Your task to perform on an android device: Show me productivity apps on the Play Store Image 0: 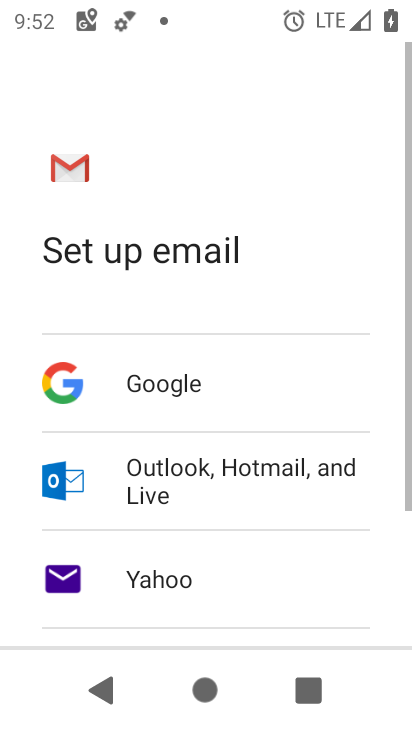
Step 0: click (299, 16)
Your task to perform on an android device: Show me productivity apps on the Play Store Image 1: 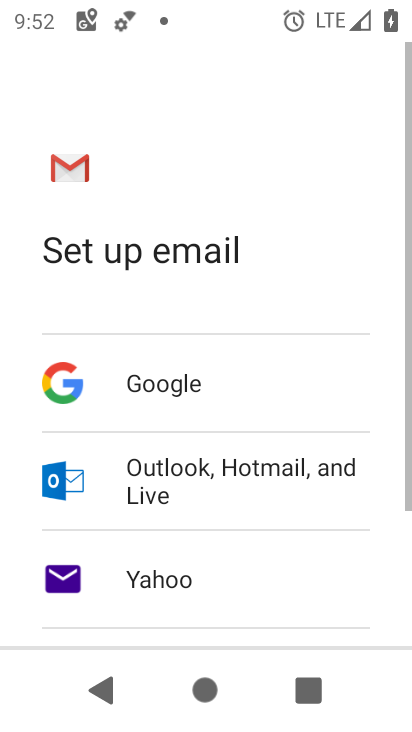
Step 1: press home button
Your task to perform on an android device: Show me productivity apps on the Play Store Image 2: 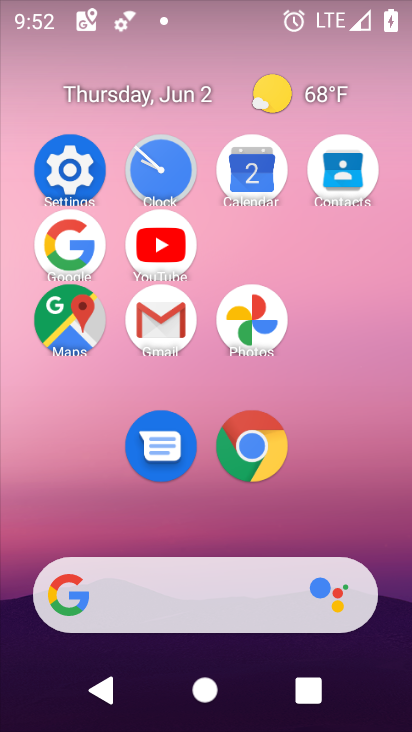
Step 2: drag from (208, 523) to (214, 4)
Your task to perform on an android device: Show me productivity apps on the Play Store Image 3: 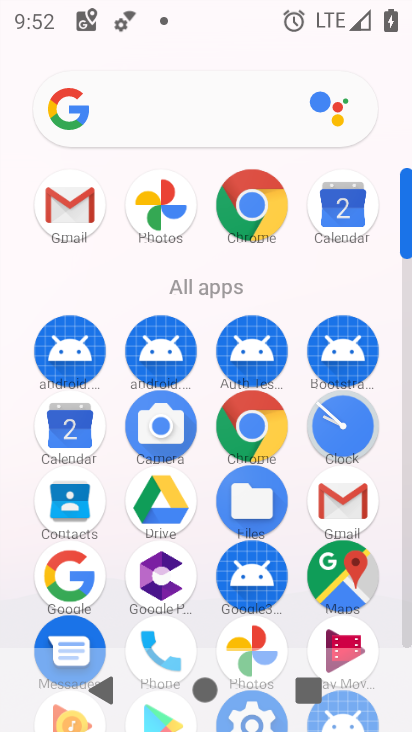
Step 3: drag from (255, 600) to (255, 279)
Your task to perform on an android device: Show me productivity apps on the Play Store Image 4: 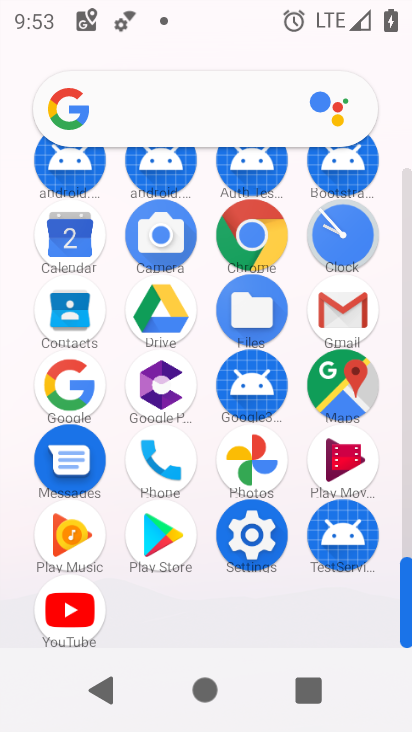
Step 4: click (149, 547)
Your task to perform on an android device: Show me productivity apps on the Play Store Image 5: 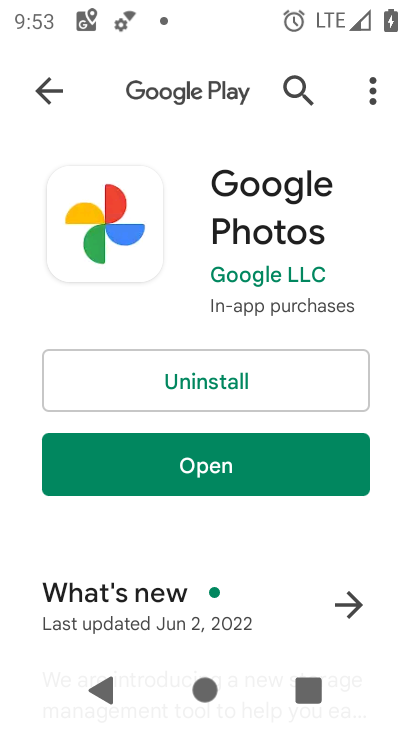
Step 5: click (36, 93)
Your task to perform on an android device: Show me productivity apps on the Play Store Image 6: 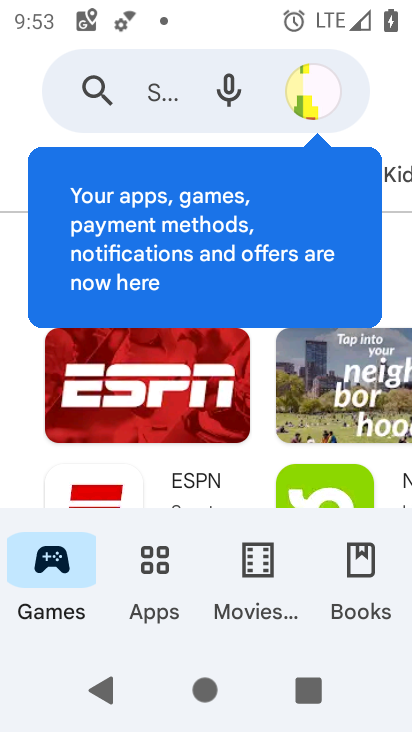
Step 6: click (168, 557)
Your task to perform on an android device: Show me productivity apps on the Play Store Image 7: 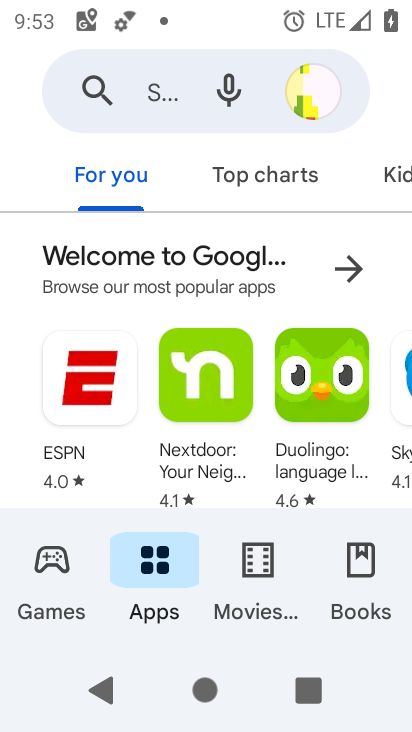
Step 7: drag from (368, 170) to (69, 151)
Your task to perform on an android device: Show me productivity apps on the Play Store Image 8: 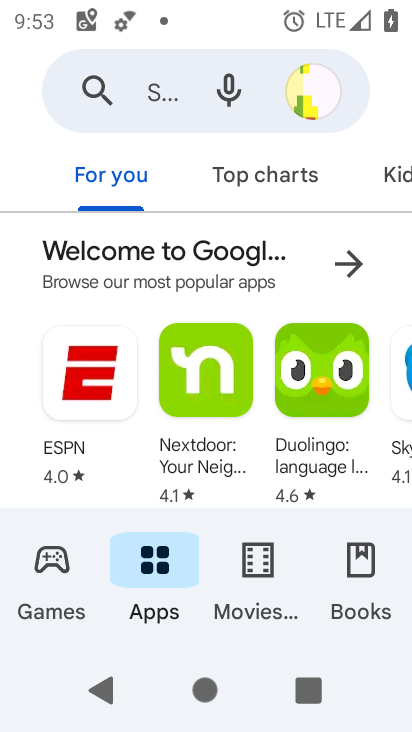
Step 8: drag from (346, 167) to (54, 178)
Your task to perform on an android device: Show me productivity apps on the Play Store Image 9: 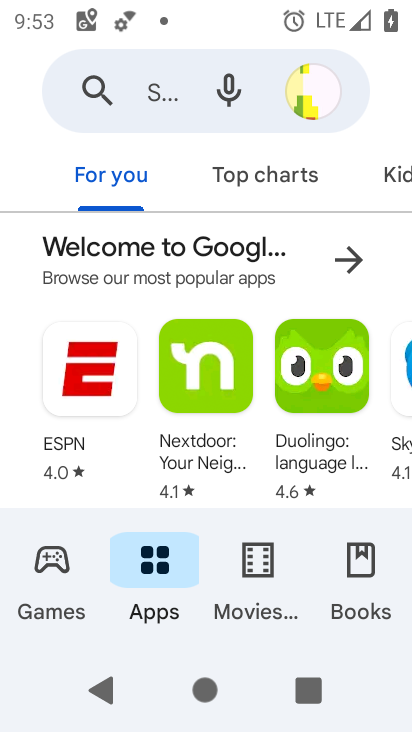
Step 9: drag from (294, 193) to (9, 196)
Your task to perform on an android device: Show me productivity apps on the Play Store Image 10: 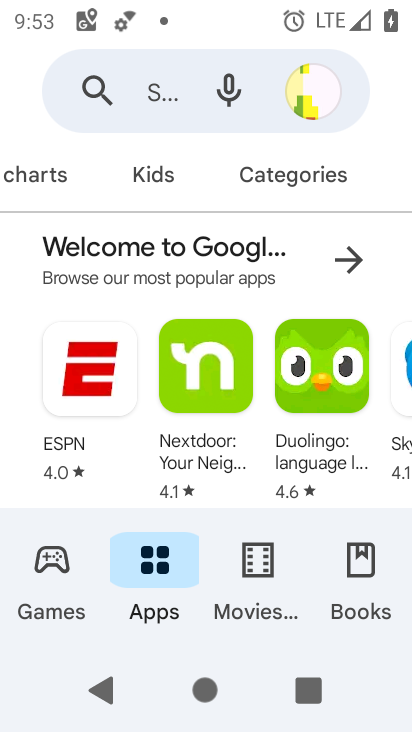
Step 10: click (313, 187)
Your task to perform on an android device: Show me productivity apps on the Play Store Image 11: 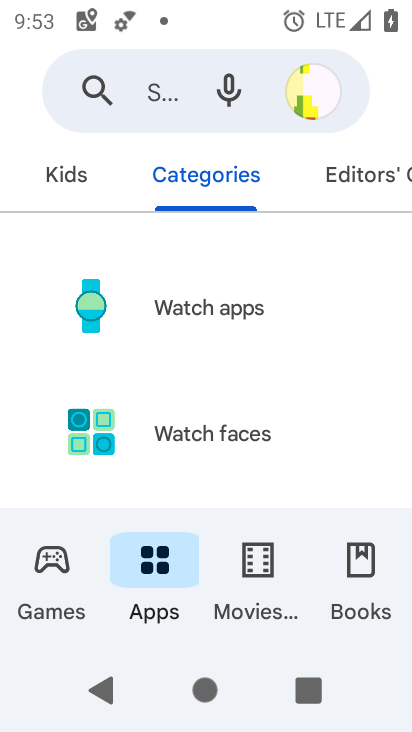
Step 11: drag from (280, 445) to (291, 167)
Your task to perform on an android device: Show me productivity apps on the Play Store Image 12: 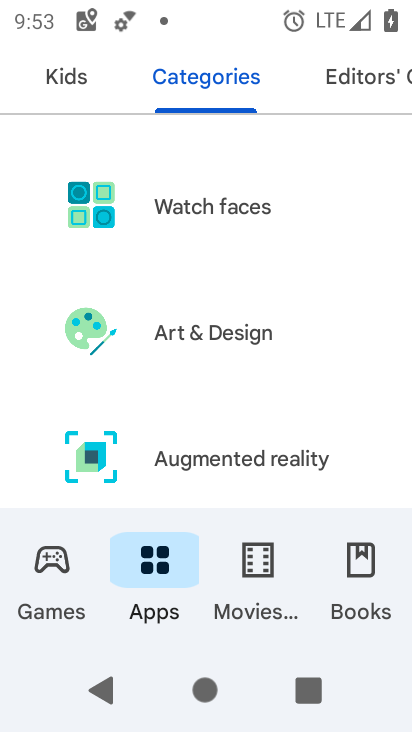
Step 12: drag from (307, 428) to (334, 144)
Your task to perform on an android device: Show me productivity apps on the Play Store Image 13: 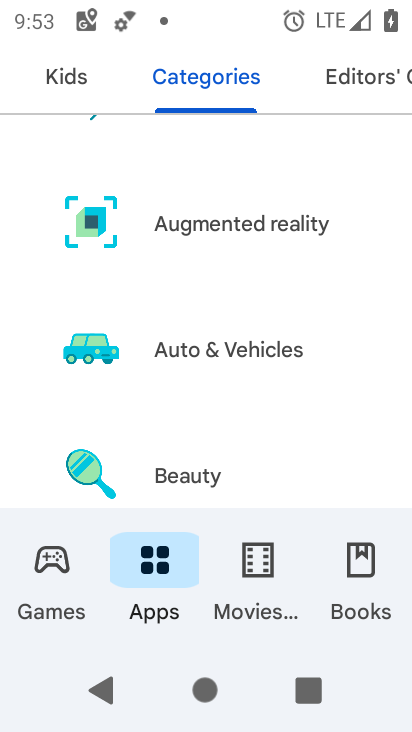
Step 13: drag from (267, 422) to (254, 130)
Your task to perform on an android device: Show me productivity apps on the Play Store Image 14: 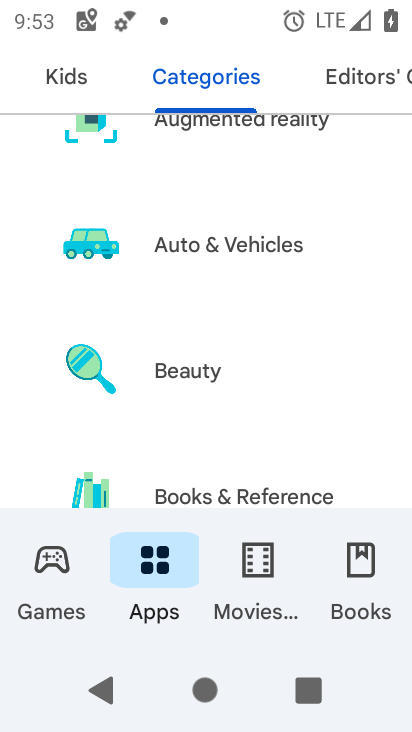
Step 14: drag from (243, 444) to (229, 91)
Your task to perform on an android device: Show me productivity apps on the Play Store Image 15: 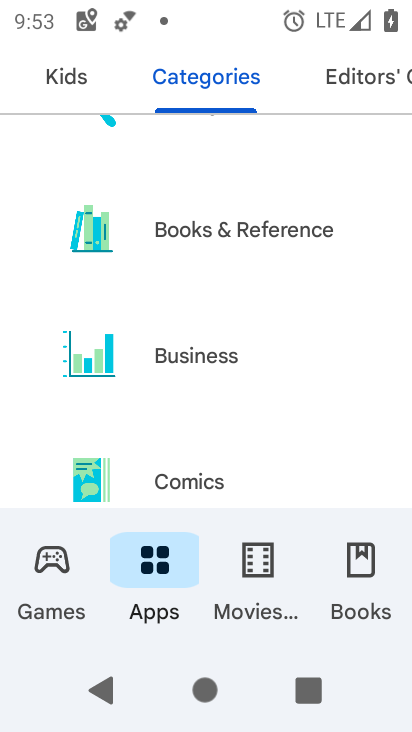
Step 15: drag from (226, 466) to (302, 151)
Your task to perform on an android device: Show me productivity apps on the Play Store Image 16: 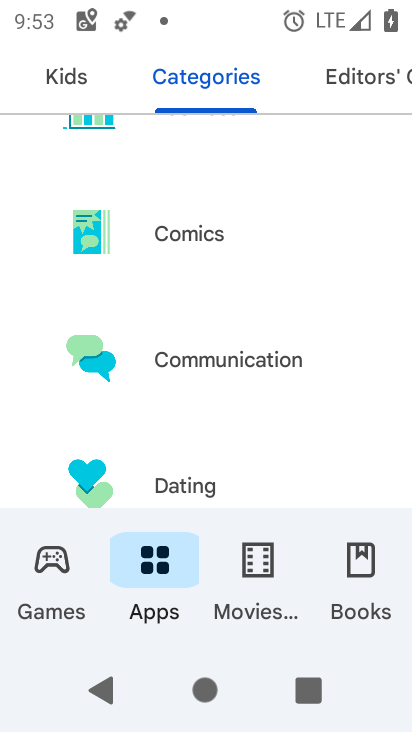
Step 16: drag from (284, 443) to (337, 156)
Your task to perform on an android device: Show me productivity apps on the Play Store Image 17: 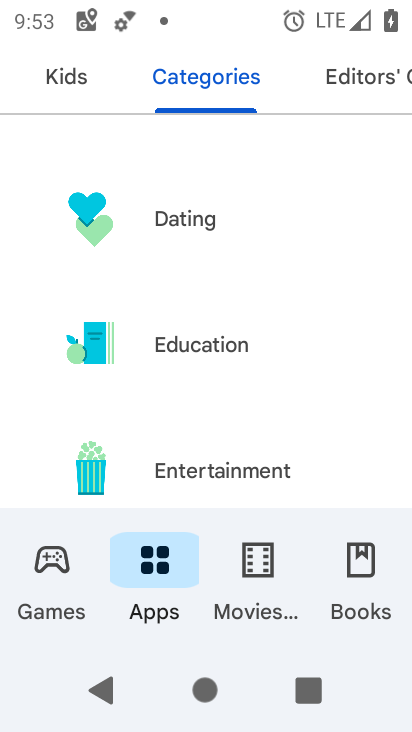
Step 17: drag from (266, 435) to (349, 66)
Your task to perform on an android device: Show me productivity apps on the Play Store Image 18: 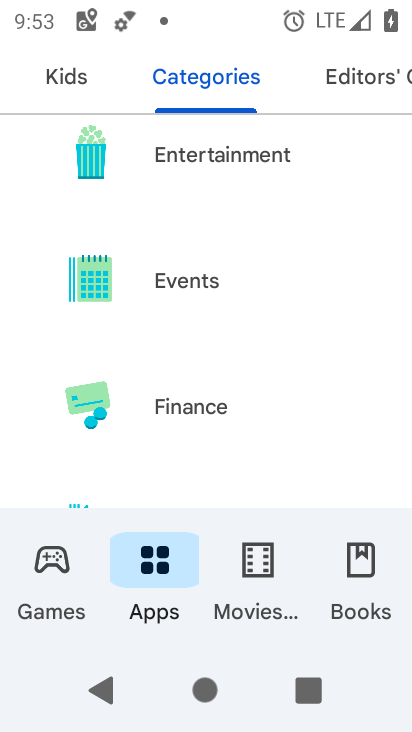
Step 18: drag from (282, 406) to (322, 136)
Your task to perform on an android device: Show me productivity apps on the Play Store Image 19: 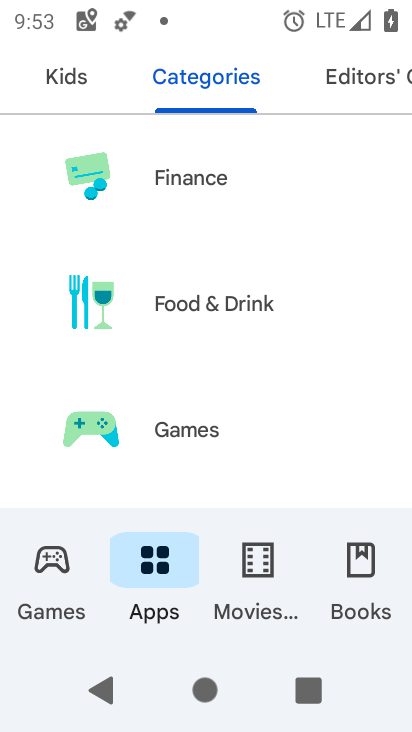
Step 19: drag from (271, 414) to (266, 125)
Your task to perform on an android device: Show me productivity apps on the Play Store Image 20: 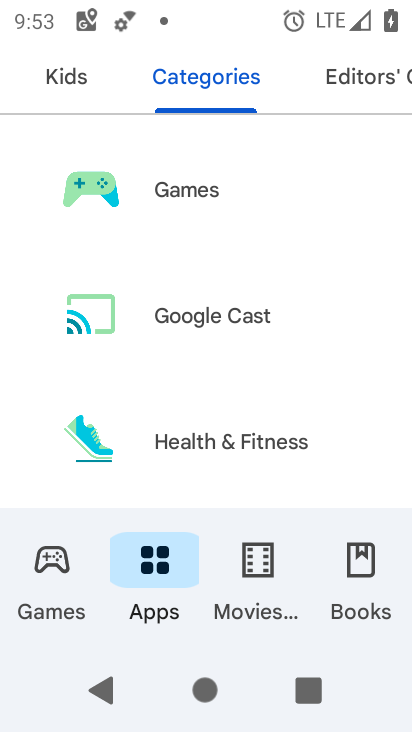
Step 20: drag from (274, 436) to (314, 168)
Your task to perform on an android device: Show me productivity apps on the Play Store Image 21: 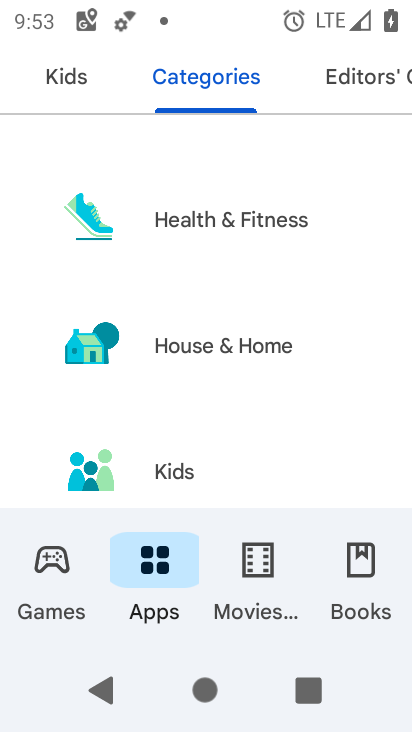
Step 21: drag from (270, 440) to (293, 177)
Your task to perform on an android device: Show me productivity apps on the Play Store Image 22: 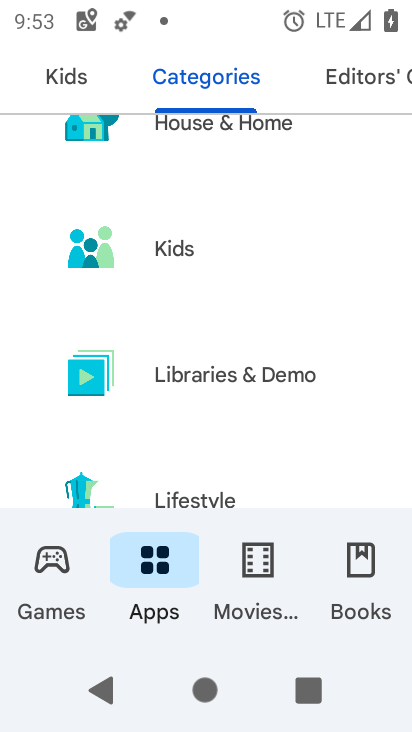
Step 22: drag from (280, 450) to (289, 181)
Your task to perform on an android device: Show me productivity apps on the Play Store Image 23: 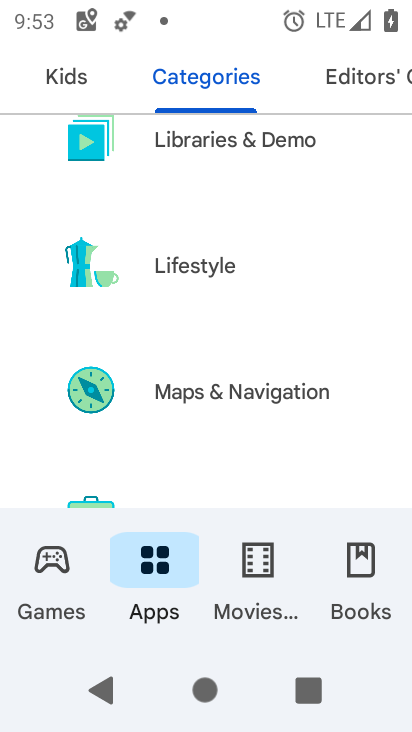
Step 23: drag from (289, 458) to (311, 154)
Your task to perform on an android device: Show me productivity apps on the Play Store Image 24: 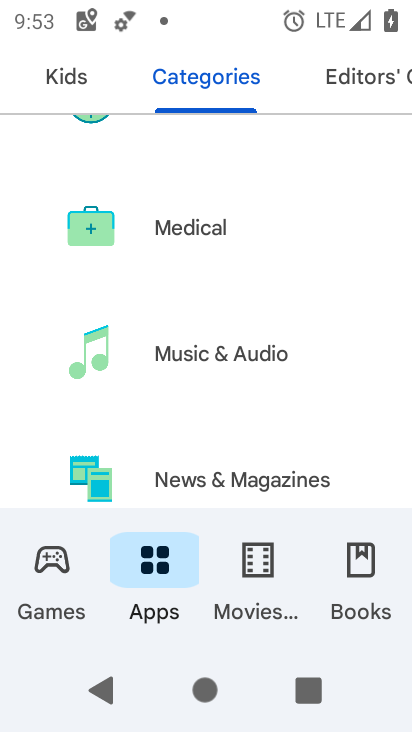
Step 24: drag from (281, 415) to (269, 140)
Your task to perform on an android device: Show me productivity apps on the Play Store Image 25: 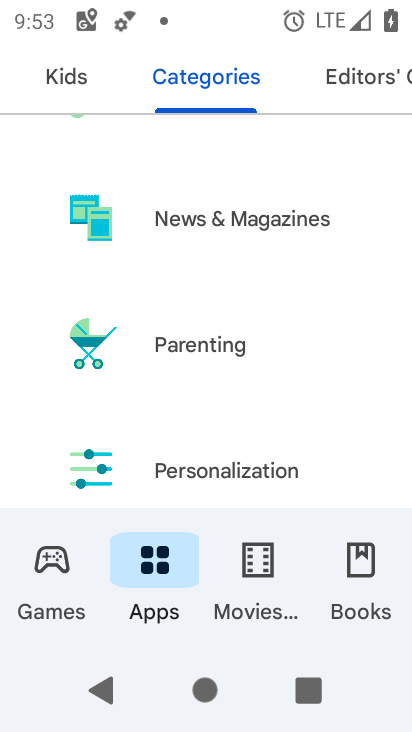
Step 25: drag from (286, 424) to (290, 132)
Your task to perform on an android device: Show me productivity apps on the Play Store Image 26: 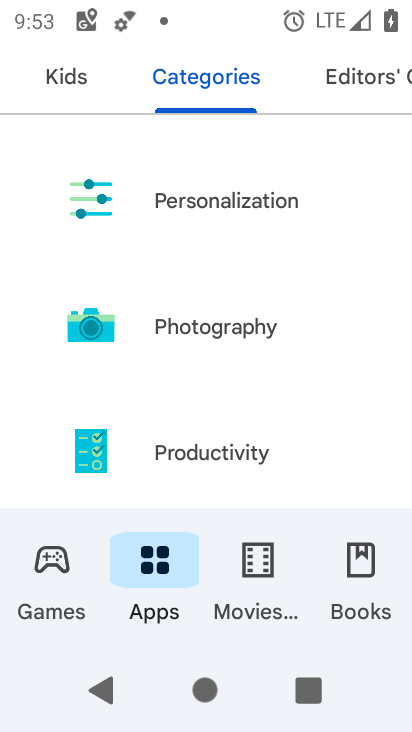
Step 26: click (248, 464)
Your task to perform on an android device: Show me productivity apps on the Play Store Image 27: 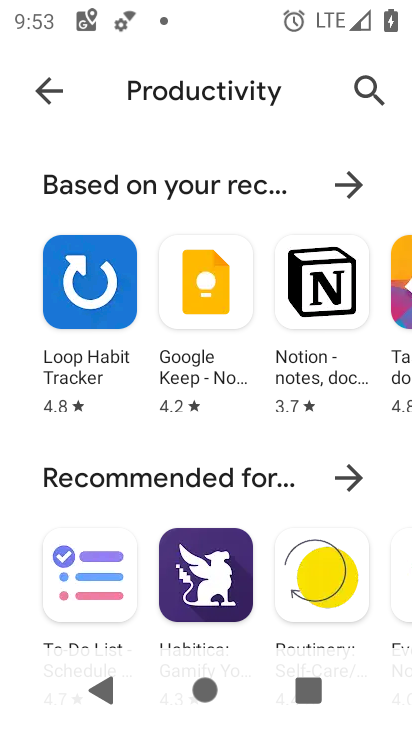
Step 27: task complete